Your task to perform on an android device: When is my next appointment? Image 0: 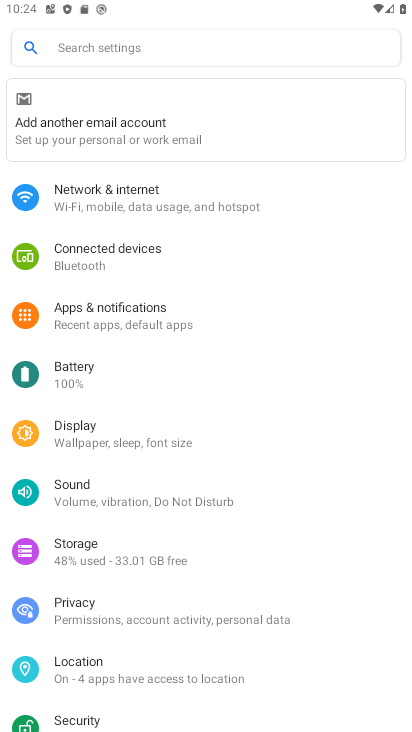
Step 0: press home button
Your task to perform on an android device: When is my next appointment? Image 1: 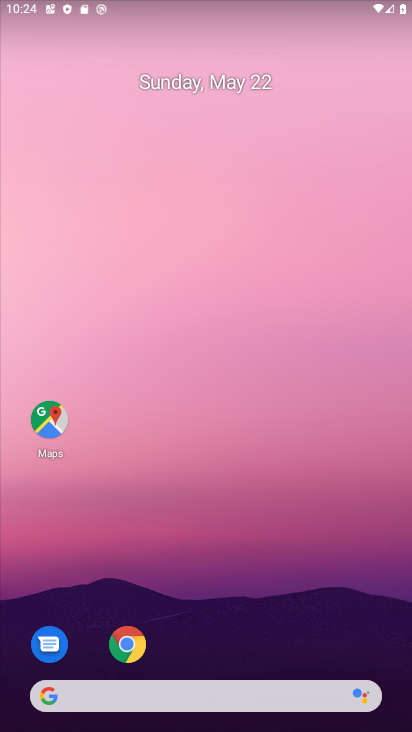
Step 1: drag from (190, 658) to (202, 382)
Your task to perform on an android device: When is my next appointment? Image 2: 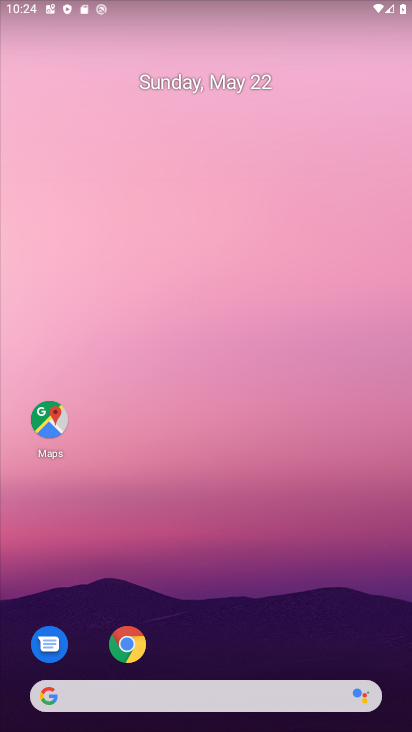
Step 2: drag from (240, 658) to (260, 172)
Your task to perform on an android device: When is my next appointment? Image 3: 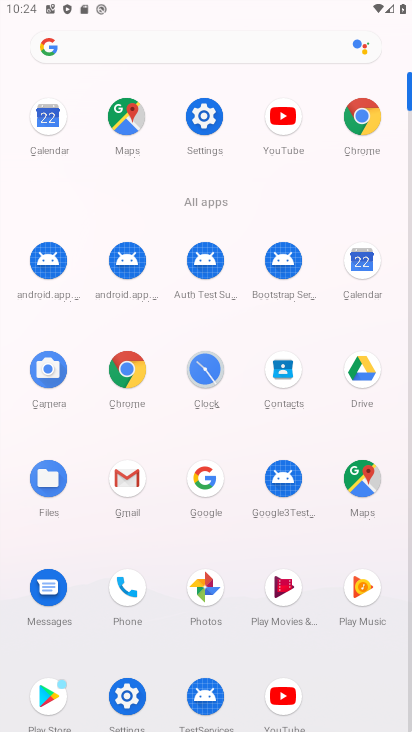
Step 3: click (362, 271)
Your task to perform on an android device: When is my next appointment? Image 4: 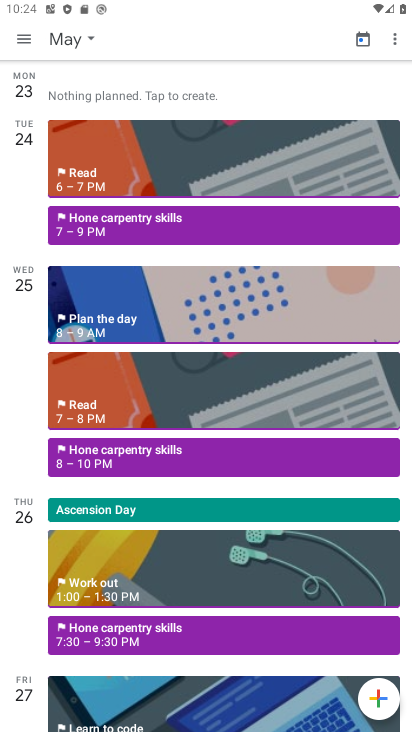
Step 4: click (24, 42)
Your task to perform on an android device: When is my next appointment? Image 5: 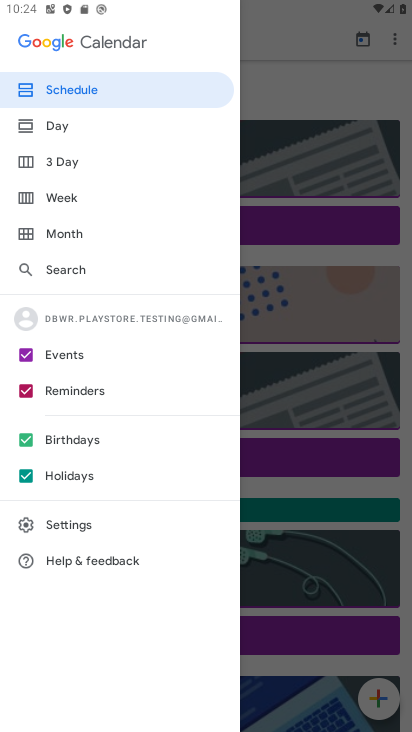
Step 5: click (55, 89)
Your task to perform on an android device: When is my next appointment? Image 6: 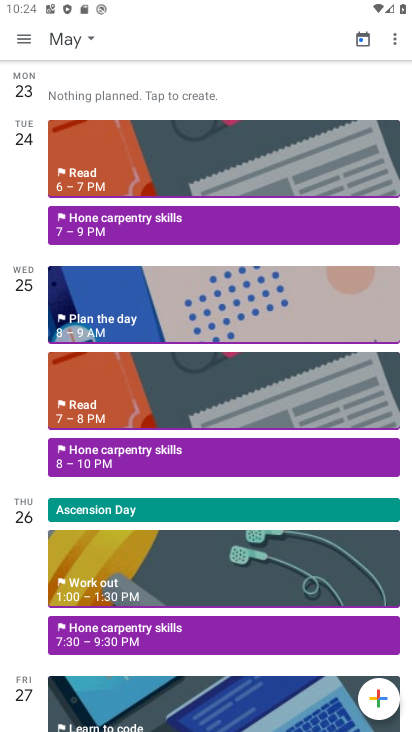
Step 6: click (100, 160)
Your task to perform on an android device: When is my next appointment? Image 7: 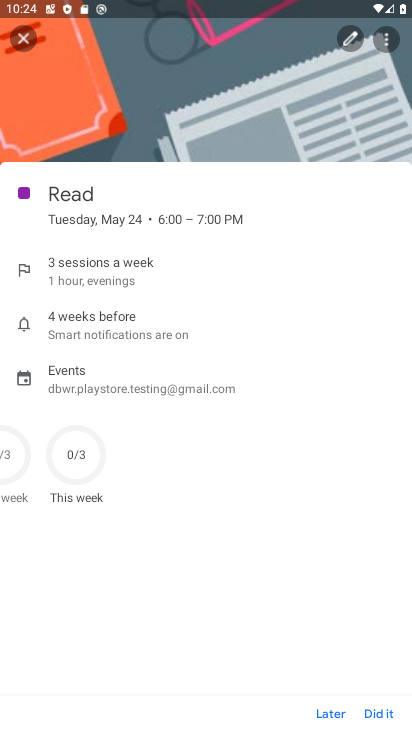
Step 7: task complete